Your task to perform on an android device: Go to ESPN.com Image 0: 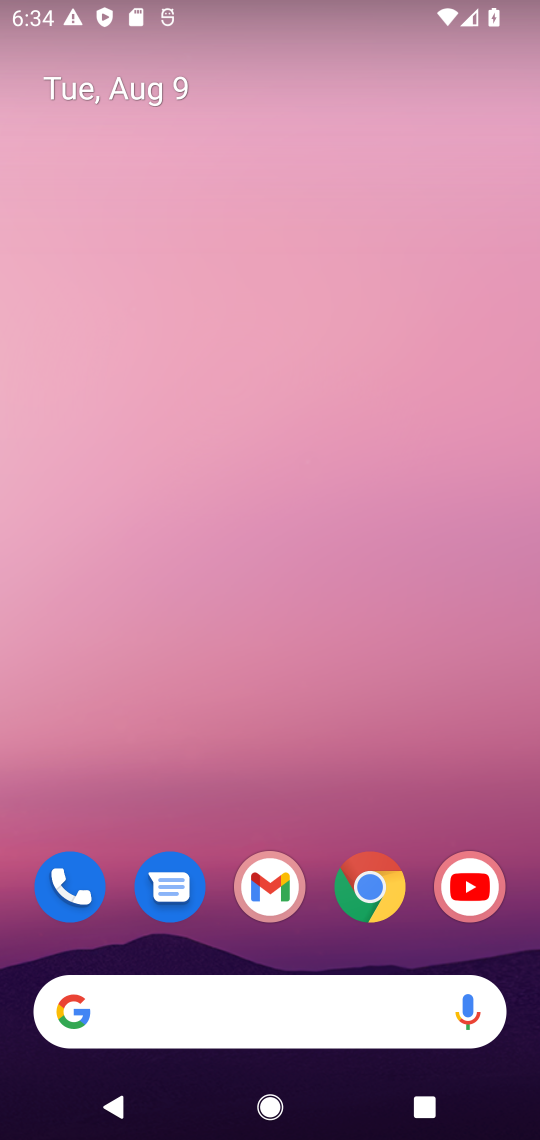
Step 0: click (374, 1011)
Your task to perform on an android device: Go to ESPN.com Image 1: 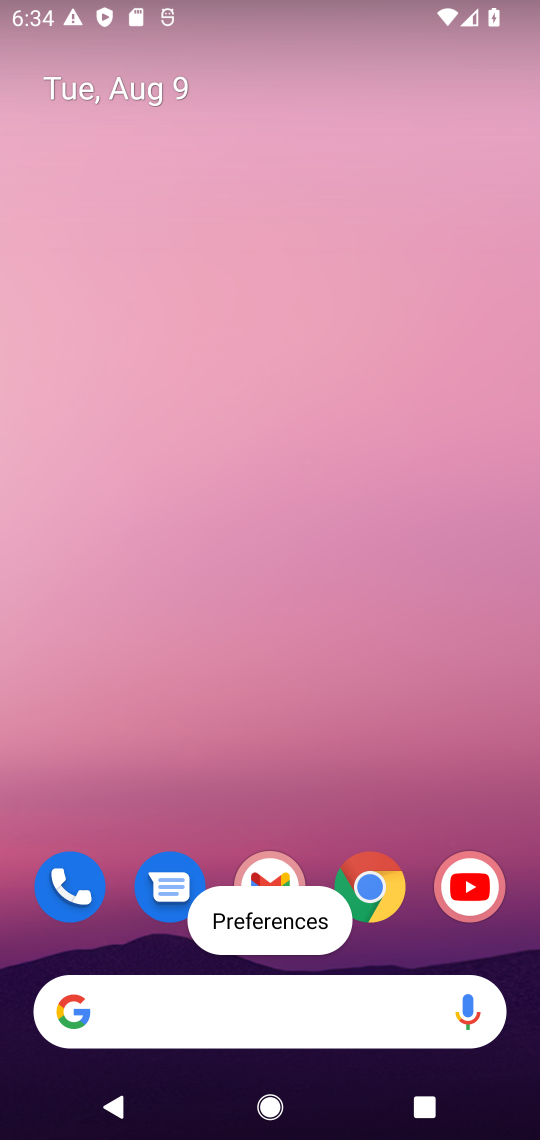
Step 1: click (250, 1016)
Your task to perform on an android device: Go to ESPN.com Image 2: 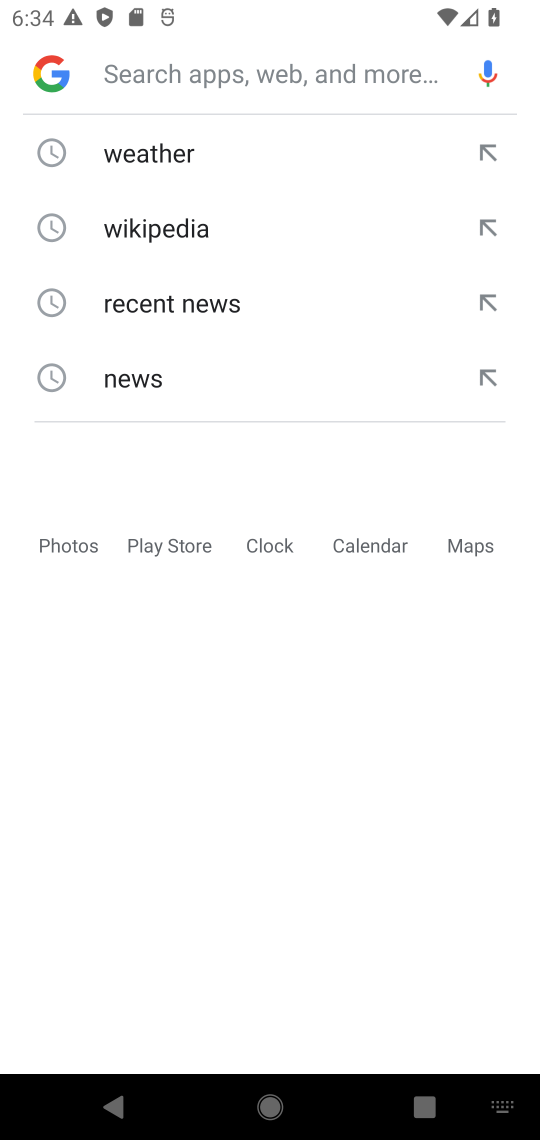
Step 2: type "espn.com"
Your task to perform on an android device: Go to ESPN.com Image 3: 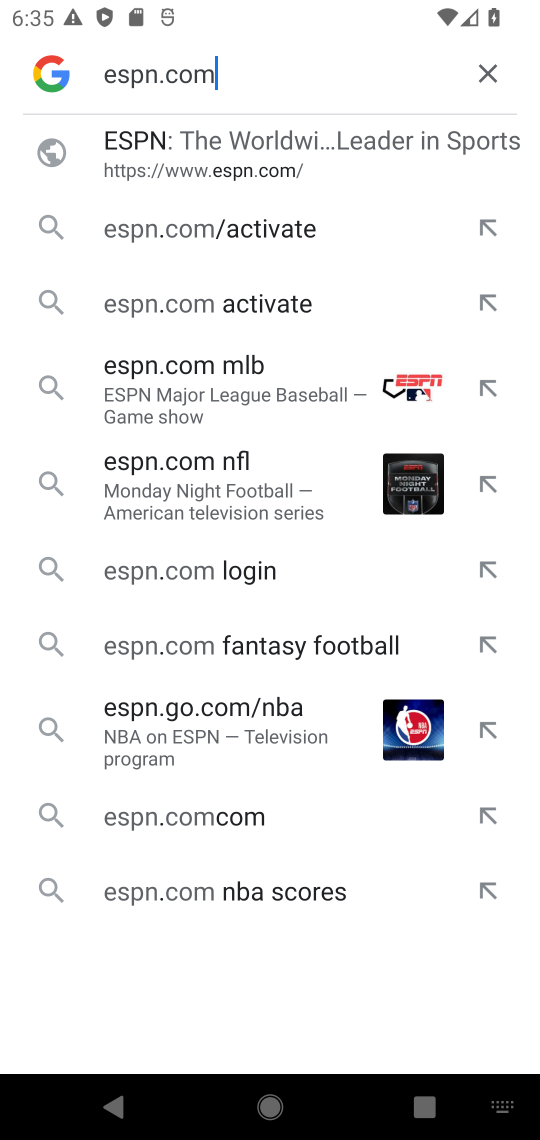
Step 3: click (315, 155)
Your task to perform on an android device: Go to ESPN.com Image 4: 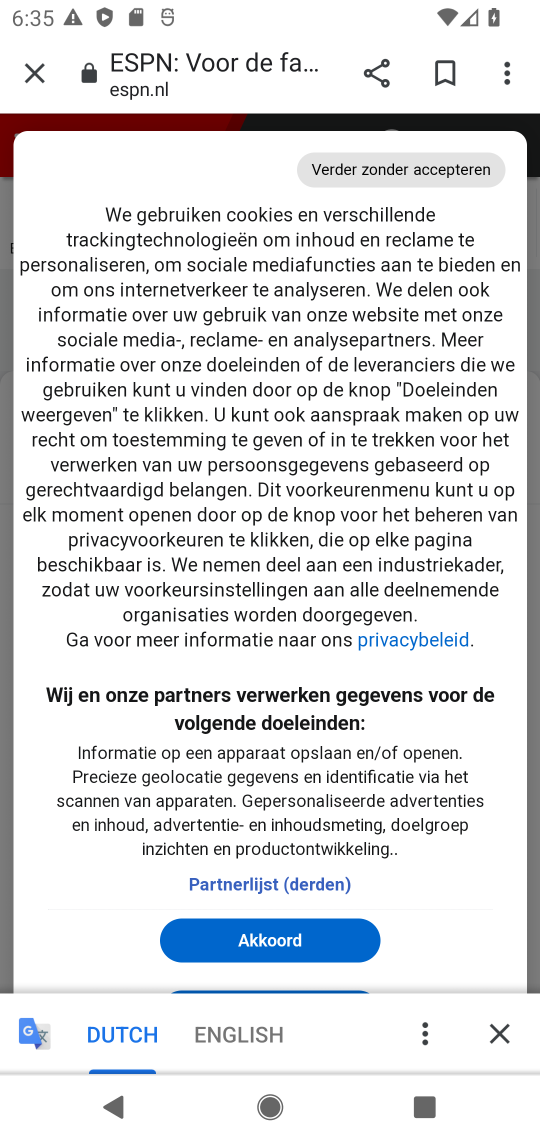
Step 4: click (269, 1022)
Your task to perform on an android device: Go to ESPN.com Image 5: 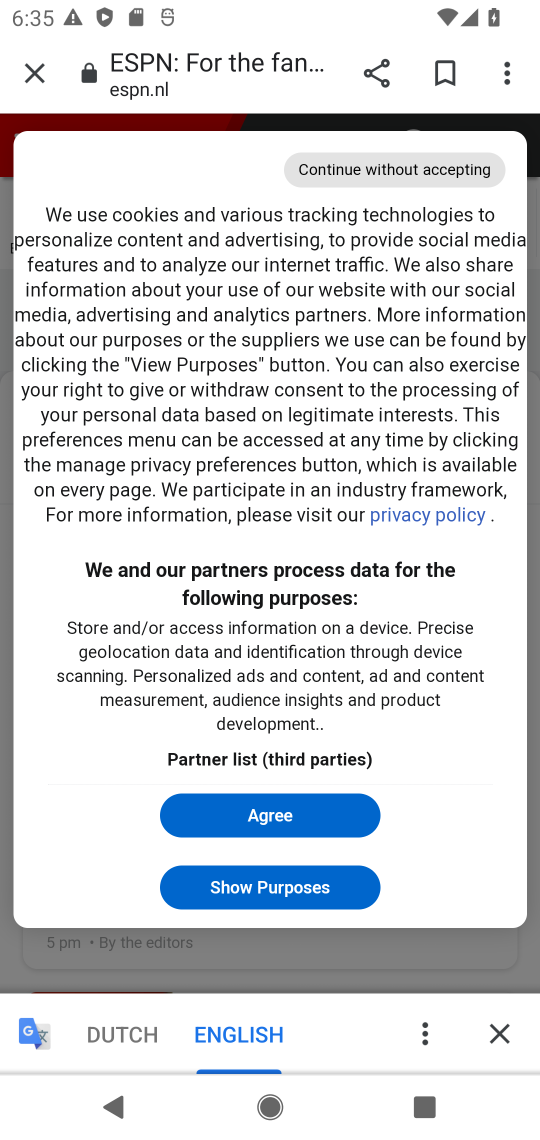
Step 5: click (286, 813)
Your task to perform on an android device: Go to ESPN.com Image 6: 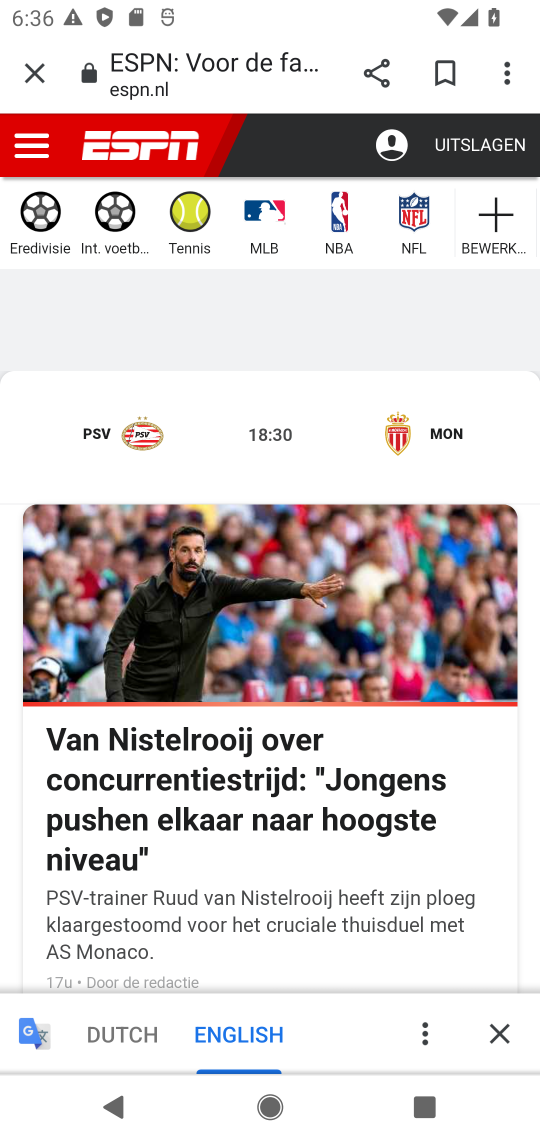
Step 6: task complete